Your task to perform on an android device: Open display settings Image 0: 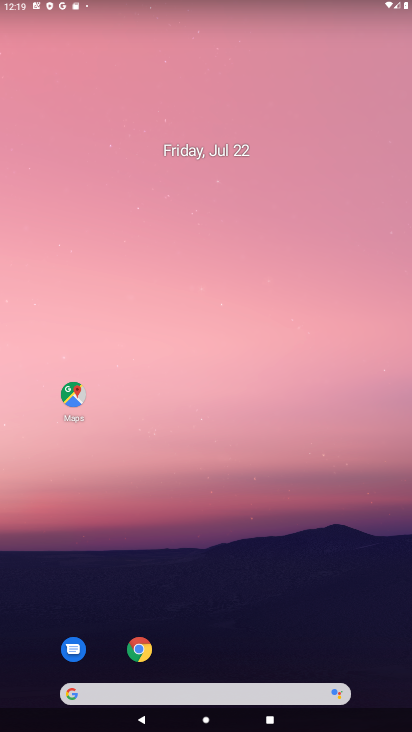
Step 0: drag from (231, 721) to (213, 541)
Your task to perform on an android device: Open display settings Image 1: 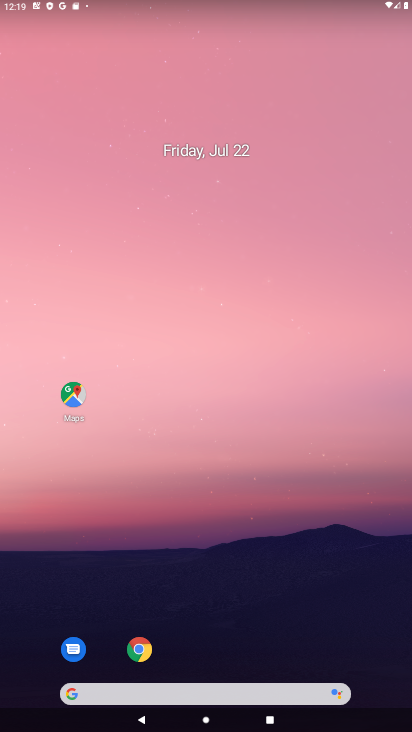
Step 1: drag from (236, 695) to (271, 47)
Your task to perform on an android device: Open display settings Image 2: 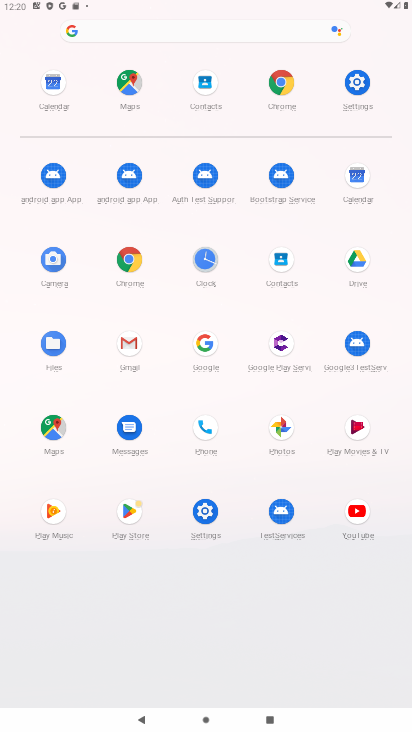
Step 2: click (359, 82)
Your task to perform on an android device: Open display settings Image 3: 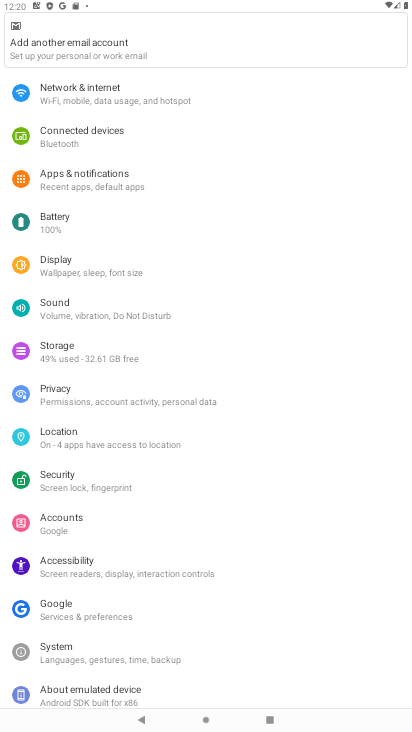
Step 3: click (66, 265)
Your task to perform on an android device: Open display settings Image 4: 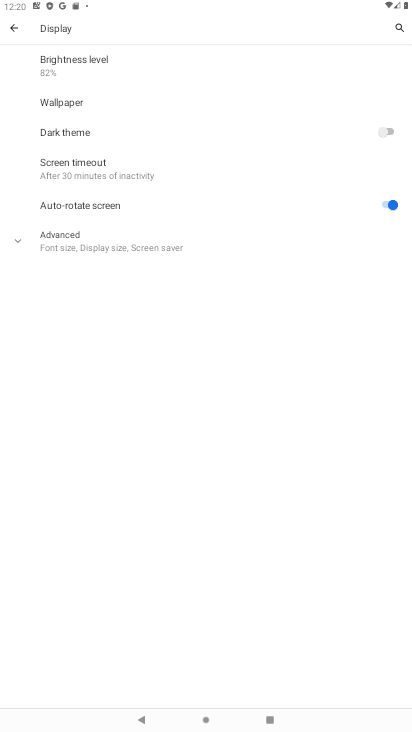
Step 4: task complete